Your task to perform on an android device: check android version Image 0: 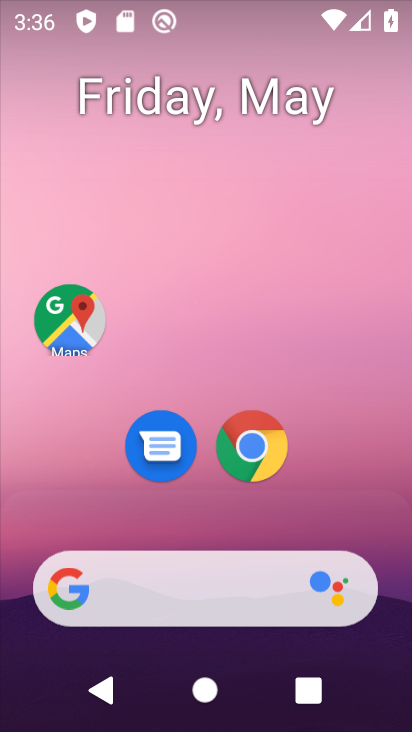
Step 0: drag from (358, 443) to (343, 71)
Your task to perform on an android device: check android version Image 1: 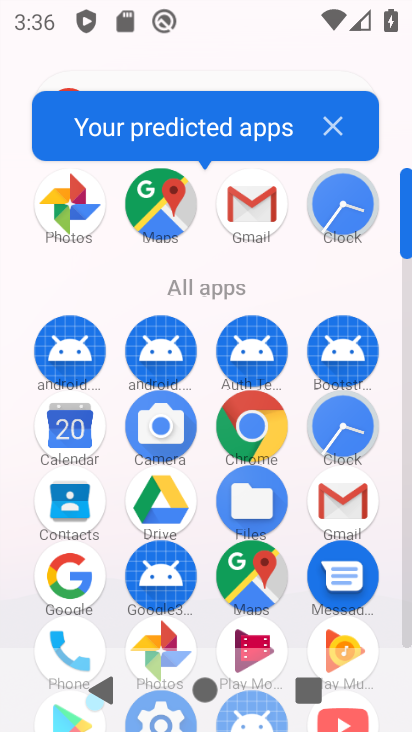
Step 1: drag from (398, 564) to (362, 75)
Your task to perform on an android device: check android version Image 2: 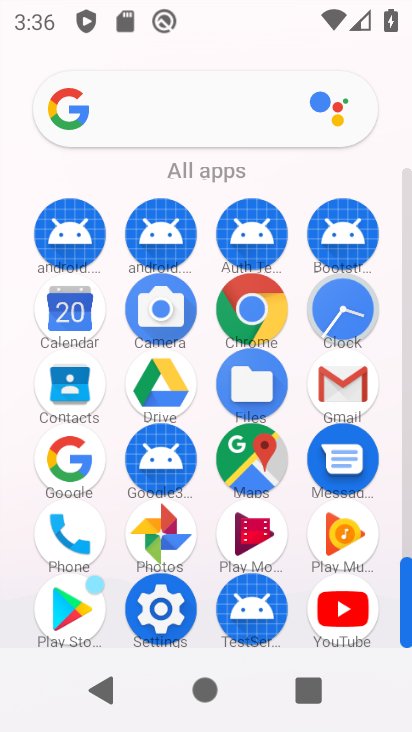
Step 2: click (180, 630)
Your task to perform on an android device: check android version Image 3: 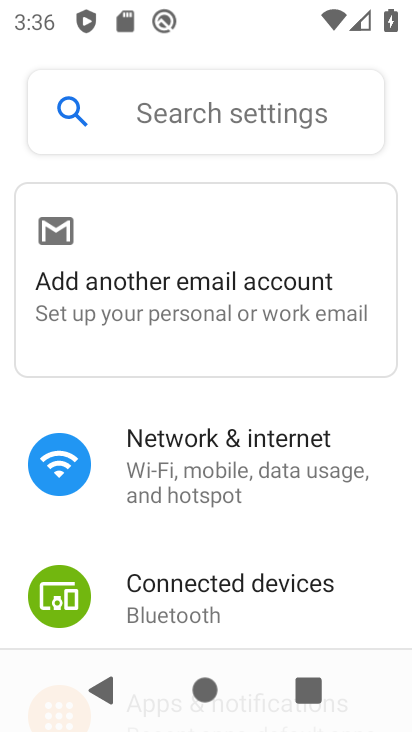
Step 3: drag from (281, 560) to (327, 231)
Your task to perform on an android device: check android version Image 4: 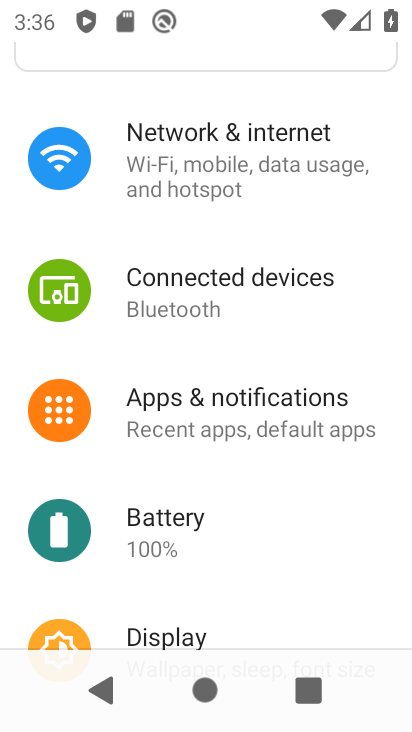
Step 4: drag from (272, 552) to (296, 165)
Your task to perform on an android device: check android version Image 5: 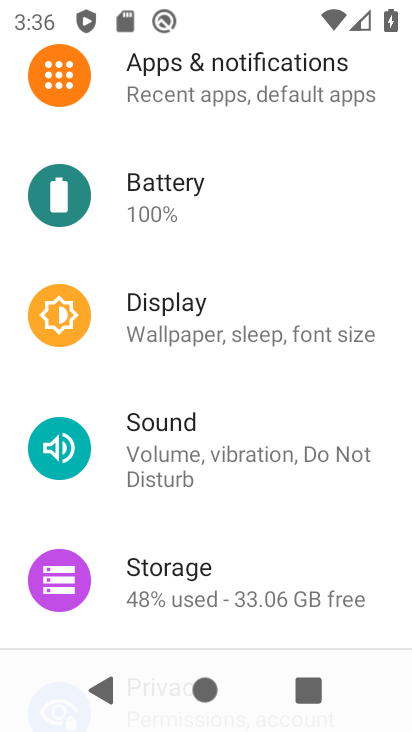
Step 5: drag from (285, 477) to (331, 227)
Your task to perform on an android device: check android version Image 6: 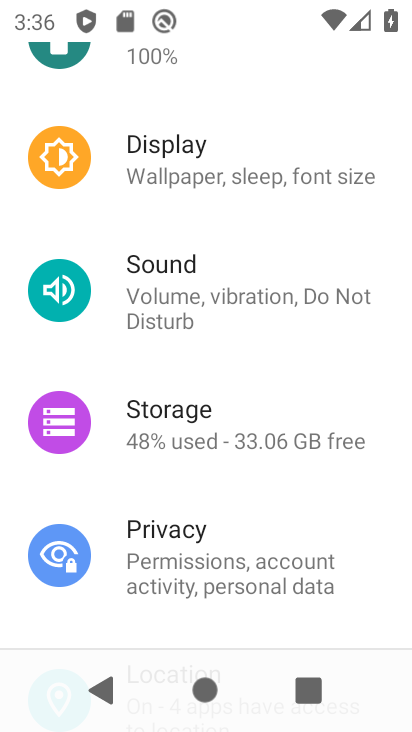
Step 6: drag from (224, 451) to (209, 116)
Your task to perform on an android device: check android version Image 7: 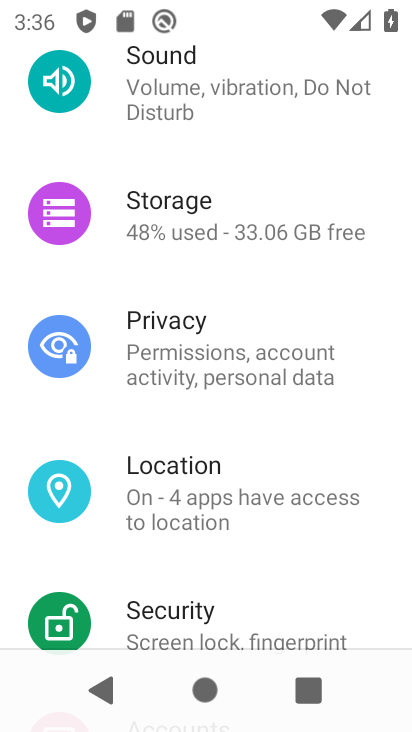
Step 7: drag from (203, 538) to (174, 139)
Your task to perform on an android device: check android version Image 8: 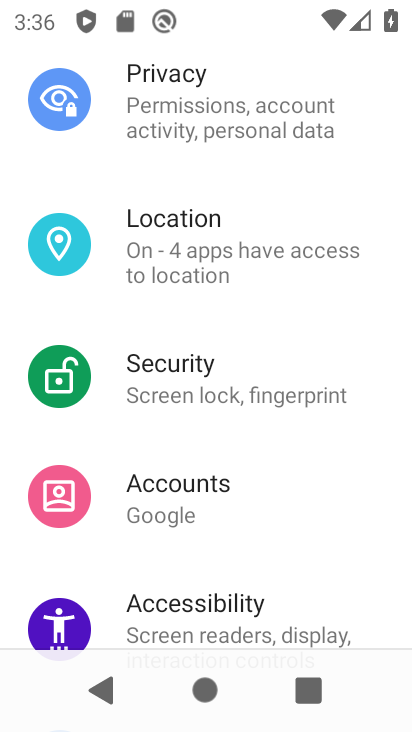
Step 8: drag from (162, 612) to (190, 169)
Your task to perform on an android device: check android version Image 9: 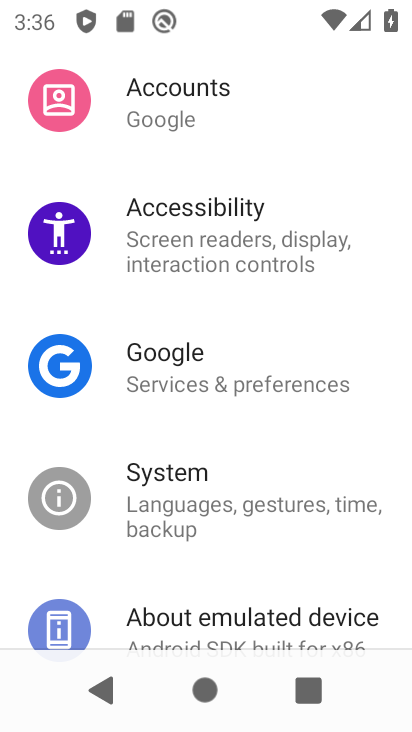
Step 9: drag from (175, 547) to (184, 177)
Your task to perform on an android device: check android version Image 10: 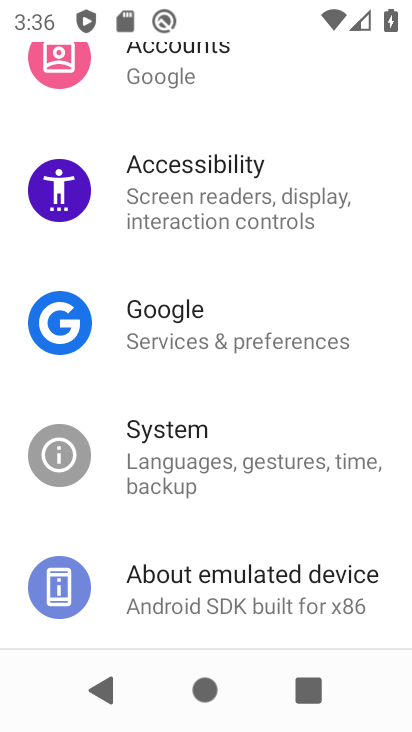
Step 10: click (190, 612)
Your task to perform on an android device: check android version Image 11: 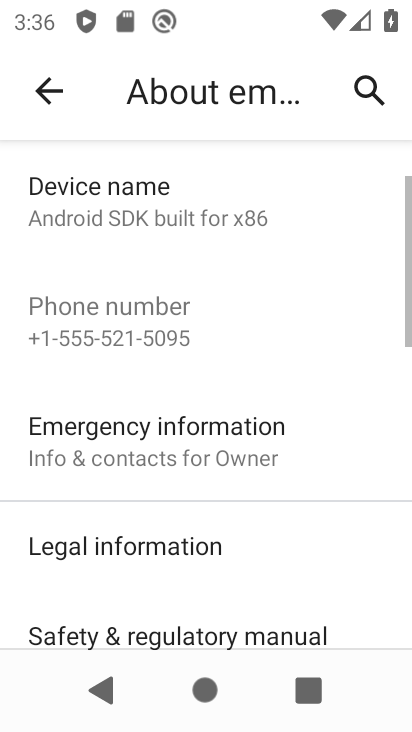
Step 11: drag from (191, 613) to (191, 277)
Your task to perform on an android device: check android version Image 12: 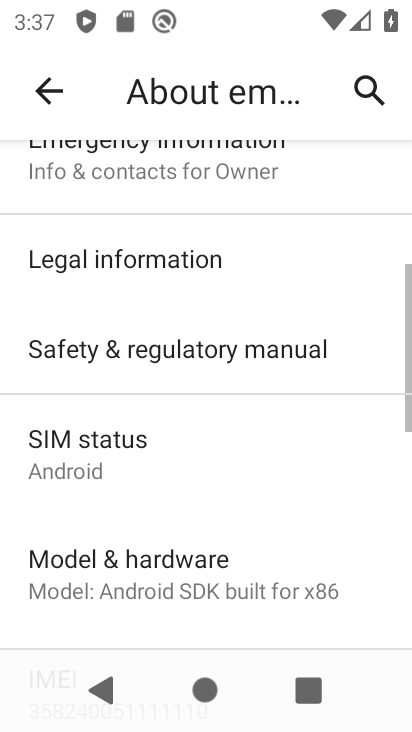
Step 12: drag from (169, 563) to (147, 220)
Your task to perform on an android device: check android version Image 13: 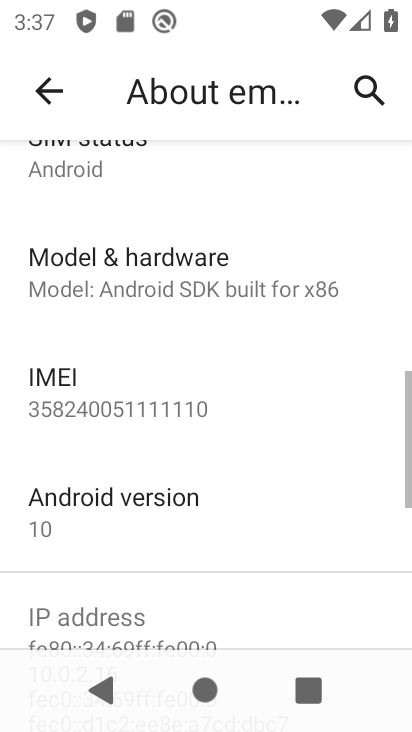
Step 13: click (149, 531)
Your task to perform on an android device: check android version Image 14: 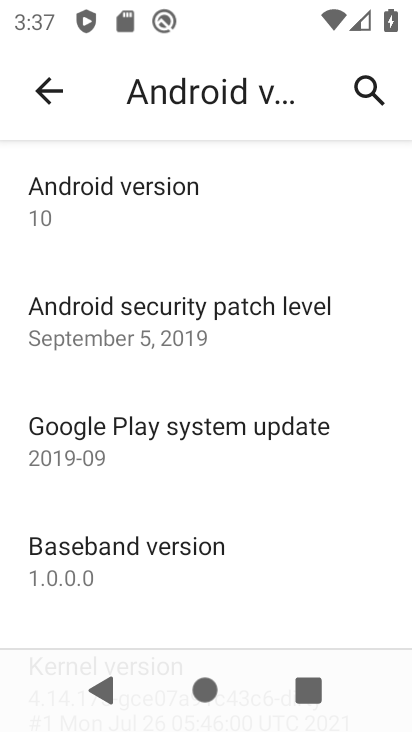
Step 14: task complete